Your task to perform on an android device: turn on translation in the chrome app Image 0: 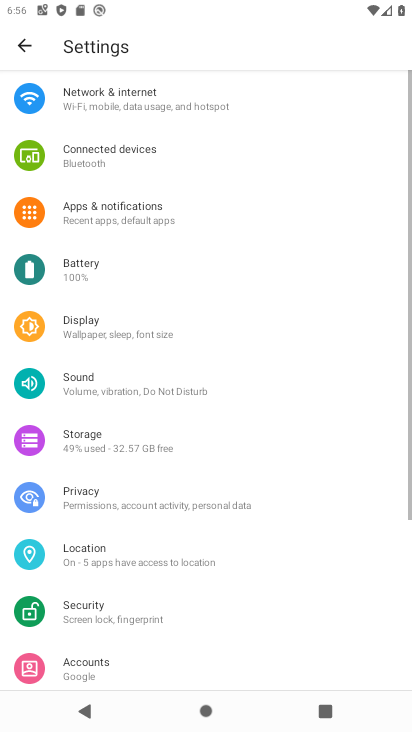
Step 0: press home button
Your task to perform on an android device: turn on translation in the chrome app Image 1: 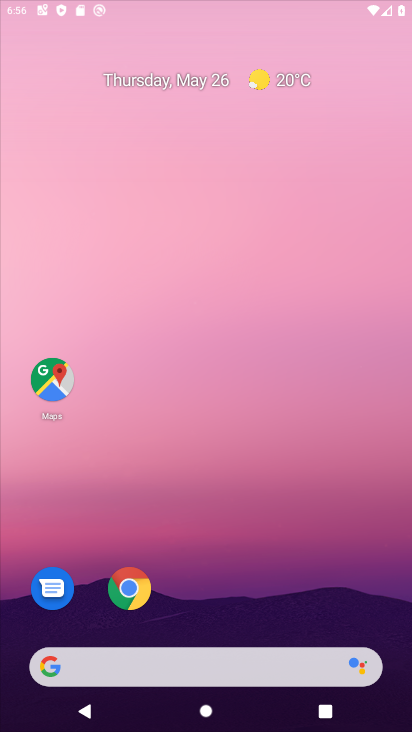
Step 1: drag from (367, 581) to (342, 68)
Your task to perform on an android device: turn on translation in the chrome app Image 2: 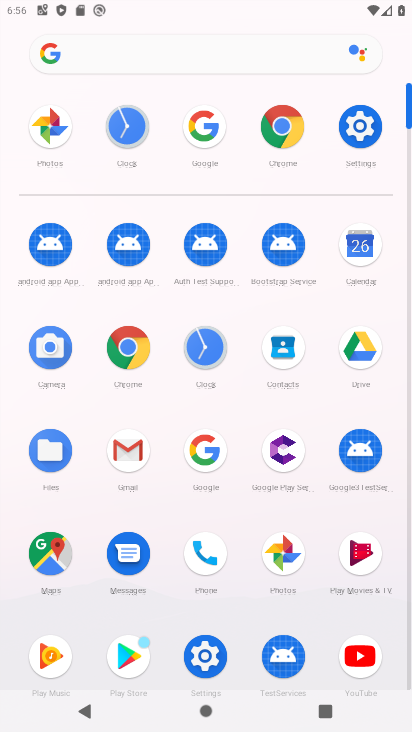
Step 2: click (132, 357)
Your task to perform on an android device: turn on translation in the chrome app Image 3: 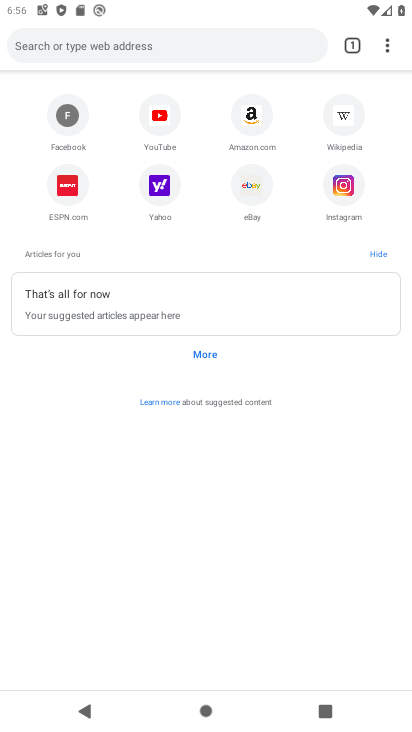
Step 3: click (388, 31)
Your task to perform on an android device: turn on translation in the chrome app Image 4: 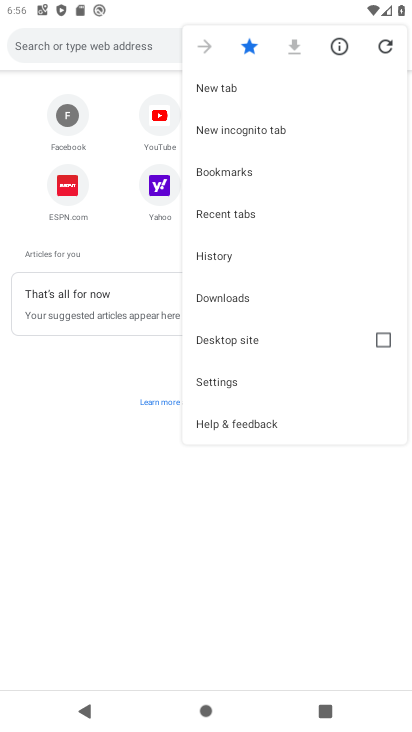
Step 4: click (213, 388)
Your task to perform on an android device: turn on translation in the chrome app Image 5: 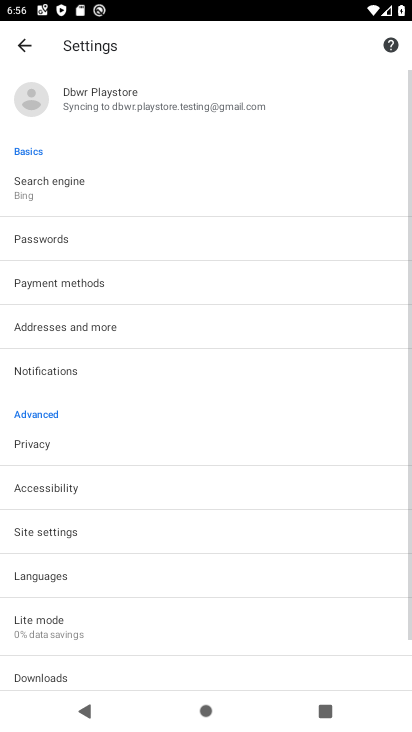
Step 5: click (106, 593)
Your task to perform on an android device: turn on translation in the chrome app Image 6: 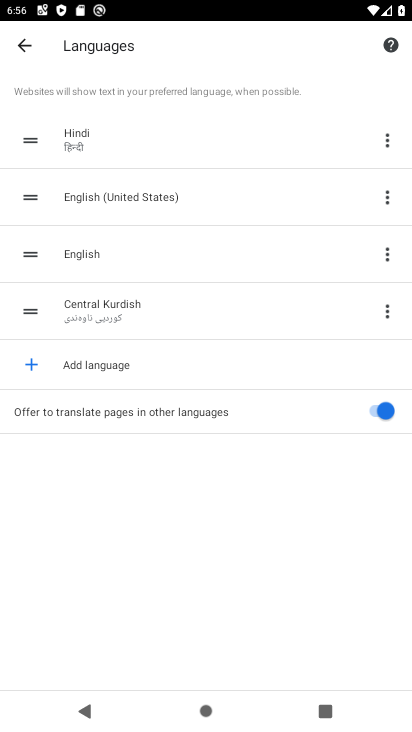
Step 6: task complete